Your task to perform on an android device: check google app version Image 0: 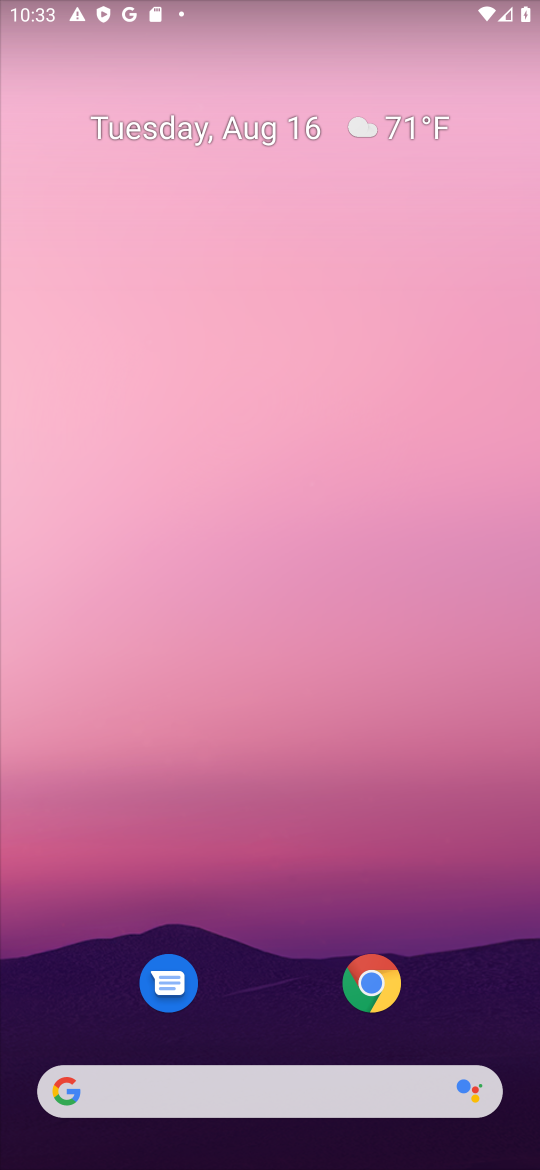
Step 0: drag from (252, 934) to (0, 203)
Your task to perform on an android device: check google app version Image 1: 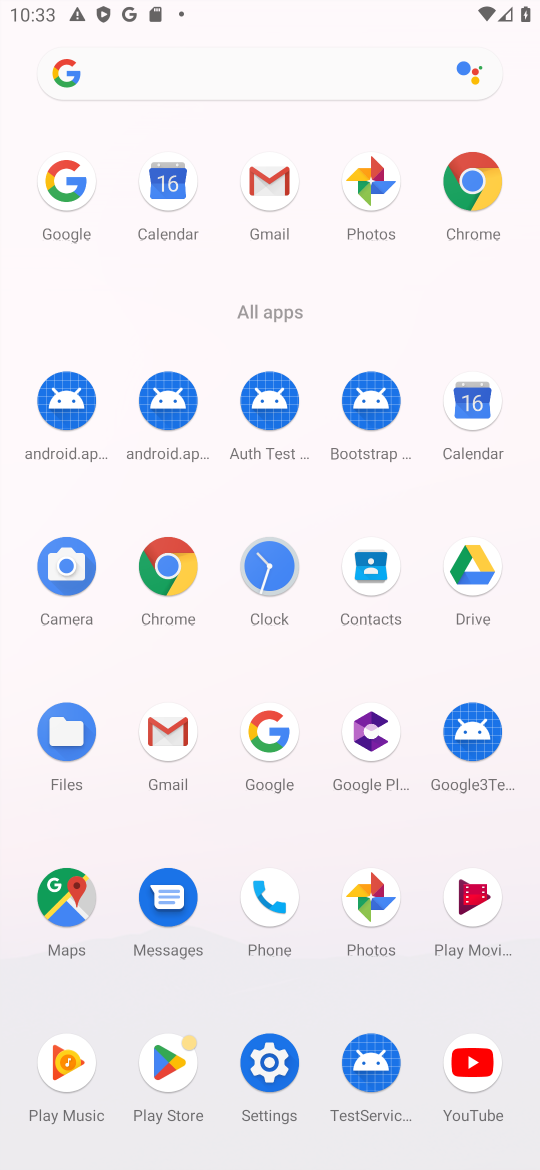
Step 1: click (268, 737)
Your task to perform on an android device: check google app version Image 2: 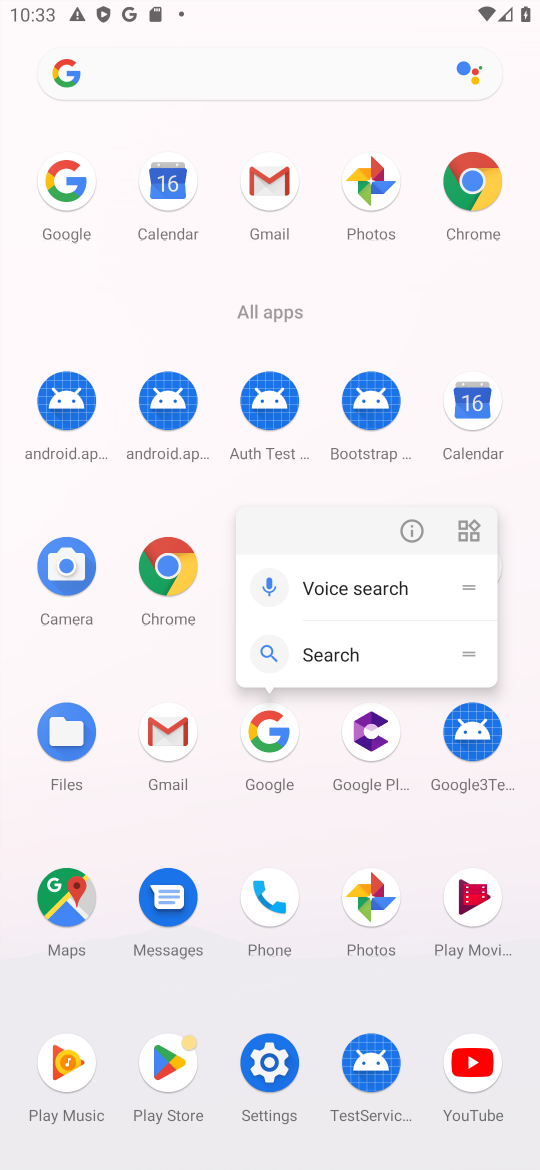
Step 2: click (401, 531)
Your task to perform on an android device: check google app version Image 3: 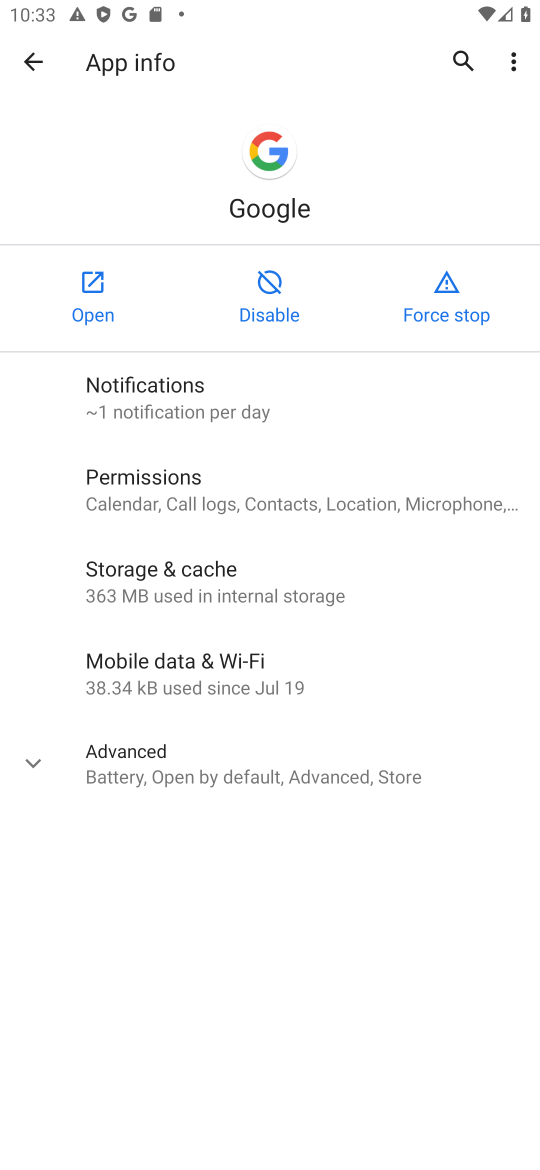
Step 3: click (180, 771)
Your task to perform on an android device: check google app version Image 4: 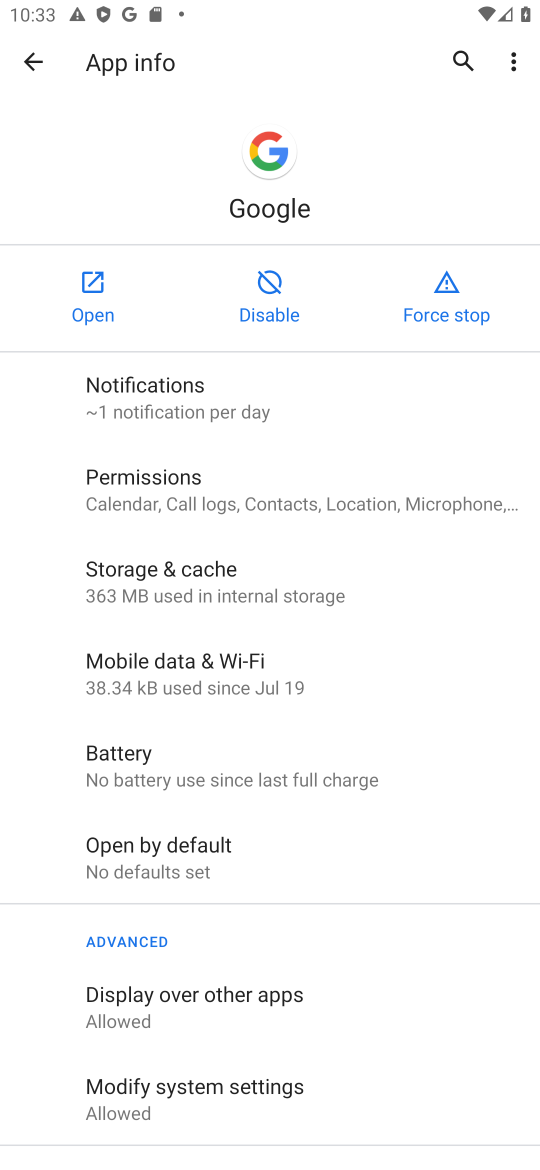
Step 4: task complete